Your task to perform on an android device: Show me recent news Image 0: 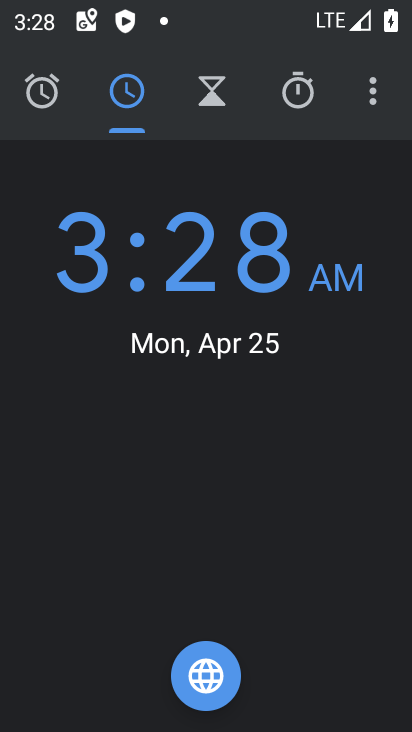
Step 0: press home button
Your task to perform on an android device: Show me recent news Image 1: 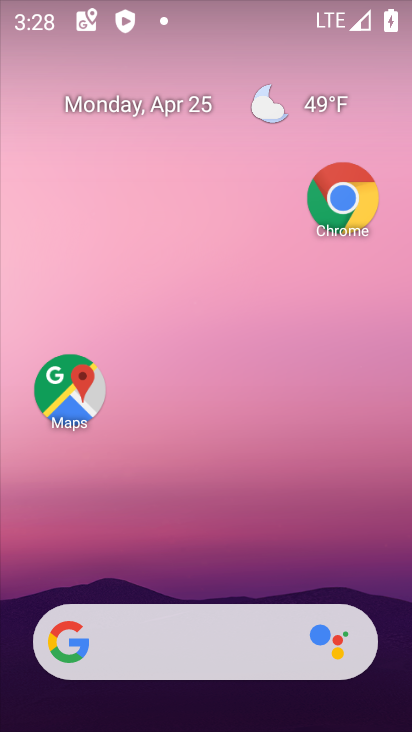
Step 1: drag from (5, 273) to (374, 279)
Your task to perform on an android device: Show me recent news Image 2: 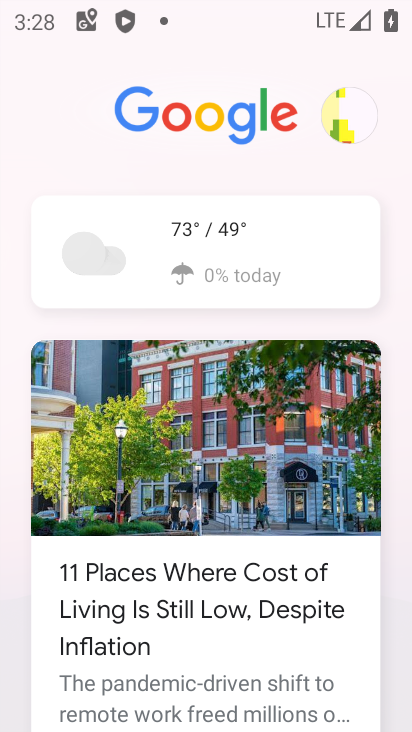
Step 2: drag from (217, 592) to (289, 349)
Your task to perform on an android device: Show me recent news Image 3: 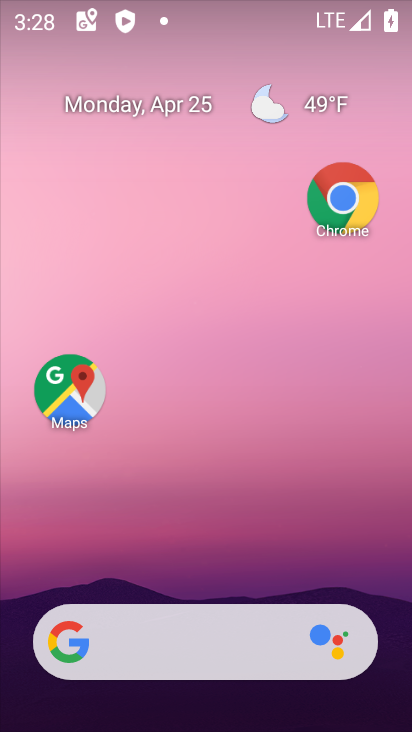
Step 3: drag from (6, 263) to (345, 331)
Your task to perform on an android device: Show me recent news Image 4: 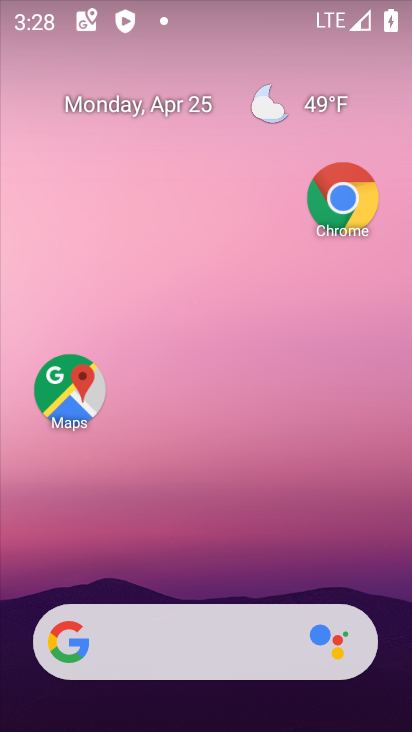
Step 4: drag from (113, 267) to (408, 426)
Your task to perform on an android device: Show me recent news Image 5: 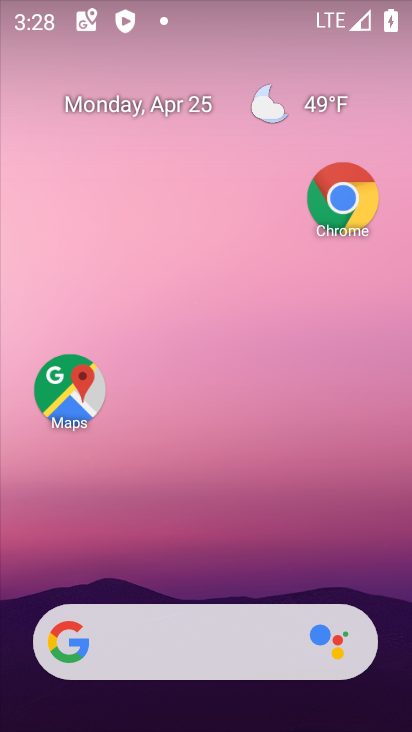
Step 5: drag from (33, 279) to (411, 337)
Your task to perform on an android device: Show me recent news Image 6: 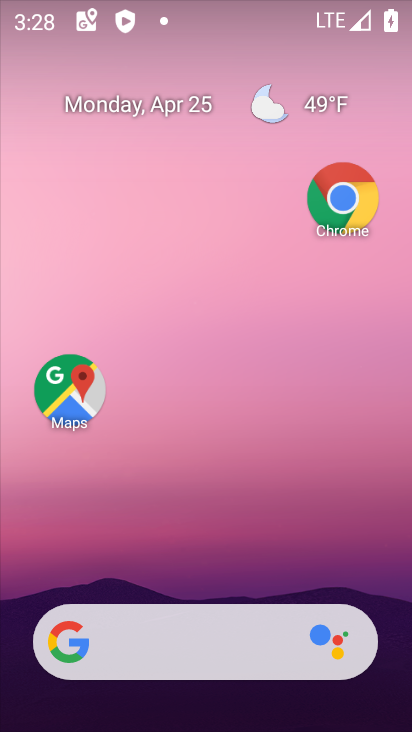
Step 6: drag from (148, 645) to (319, 110)
Your task to perform on an android device: Show me recent news Image 7: 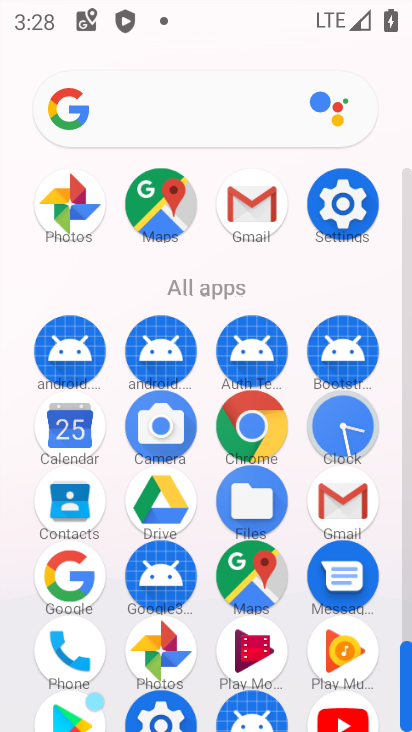
Step 7: click (69, 590)
Your task to perform on an android device: Show me recent news Image 8: 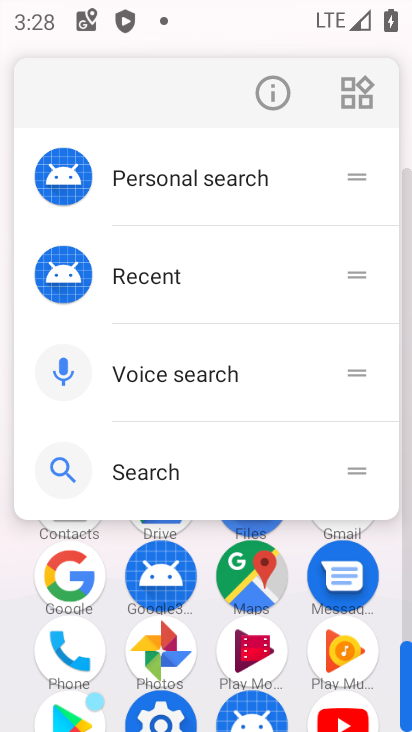
Step 8: click (59, 565)
Your task to perform on an android device: Show me recent news Image 9: 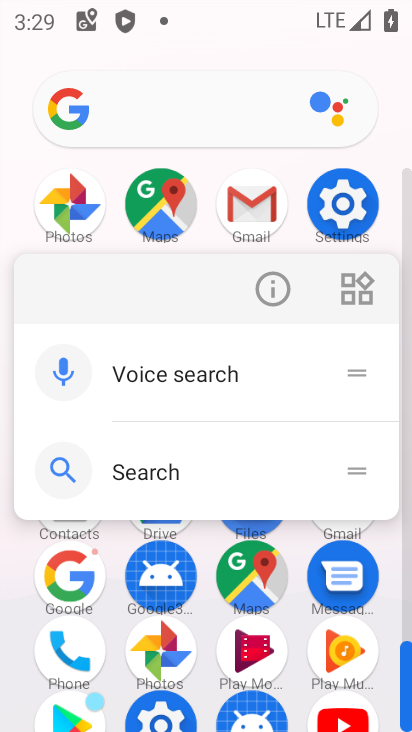
Step 9: click (57, 575)
Your task to perform on an android device: Show me recent news Image 10: 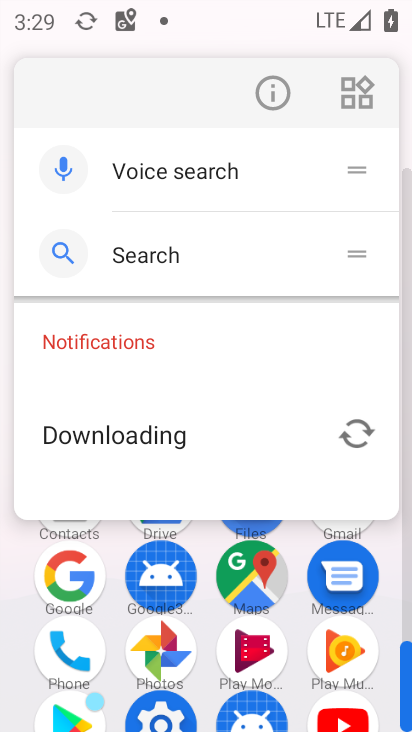
Step 10: click (87, 585)
Your task to perform on an android device: Show me recent news Image 11: 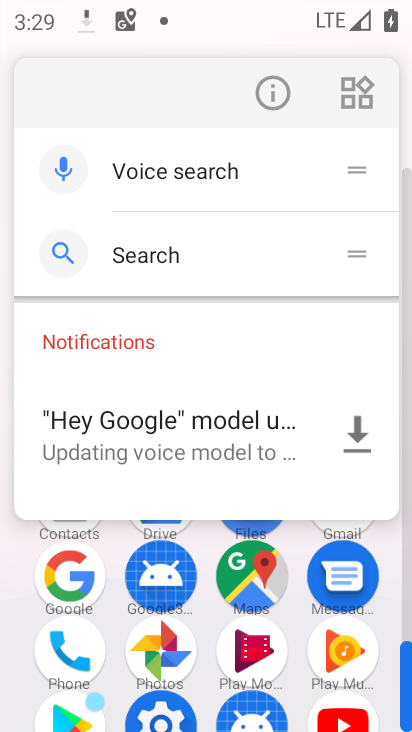
Step 11: click (65, 575)
Your task to perform on an android device: Show me recent news Image 12: 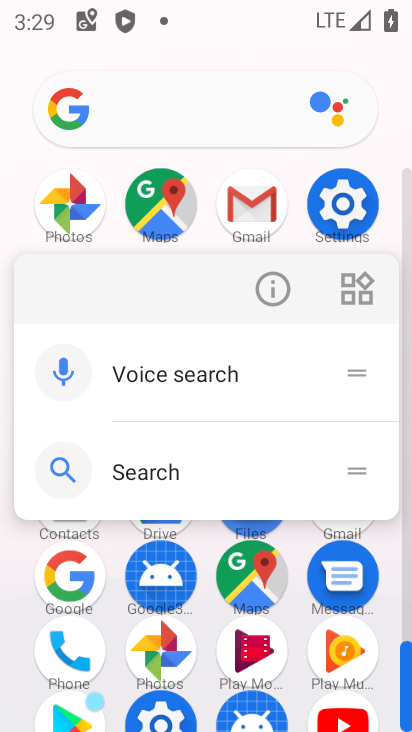
Step 12: click (65, 588)
Your task to perform on an android device: Show me recent news Image 13: 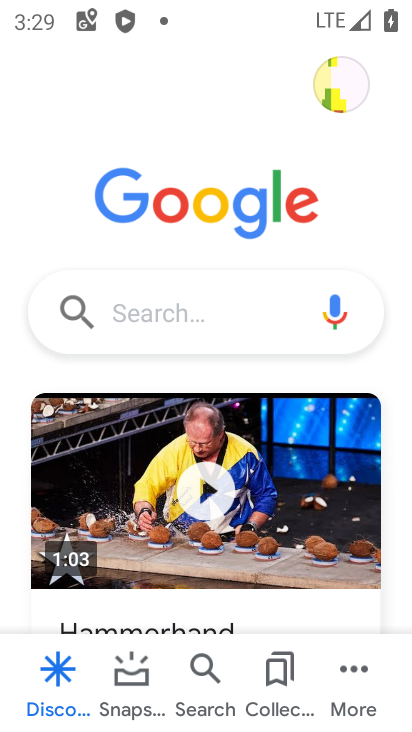
Step 13: task complete